Your task to perform on an android device: open a bookmark in the chrome app Image 0: 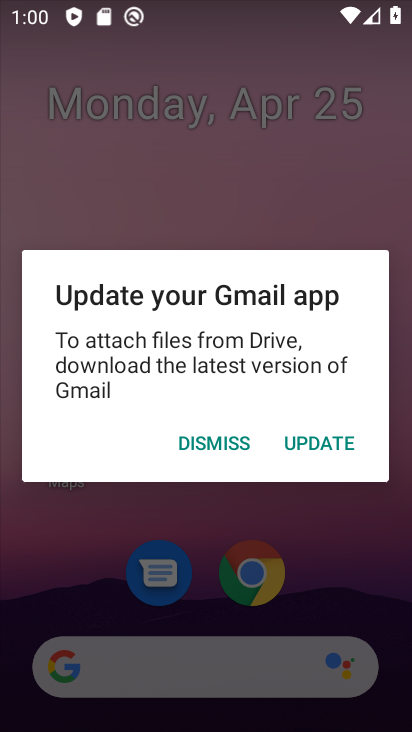
Step 0: click (235, 446)
Your task to perform on an android device: open a bookmark in the chrome app Image 1: 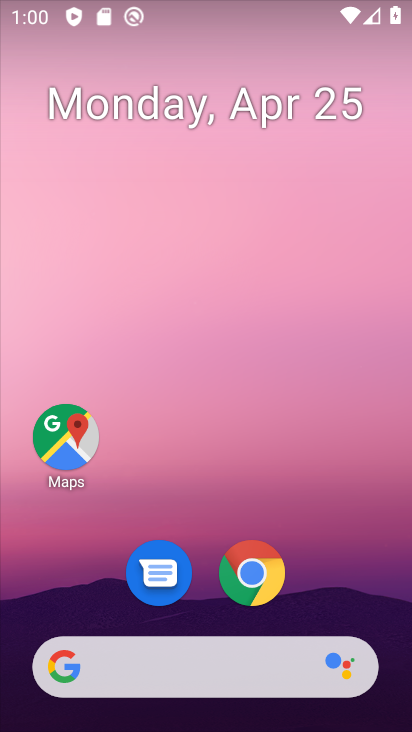
Step 1: click (255, 569)
Your task to perform on an android device: open a bookmark in the chrome app Image 2: 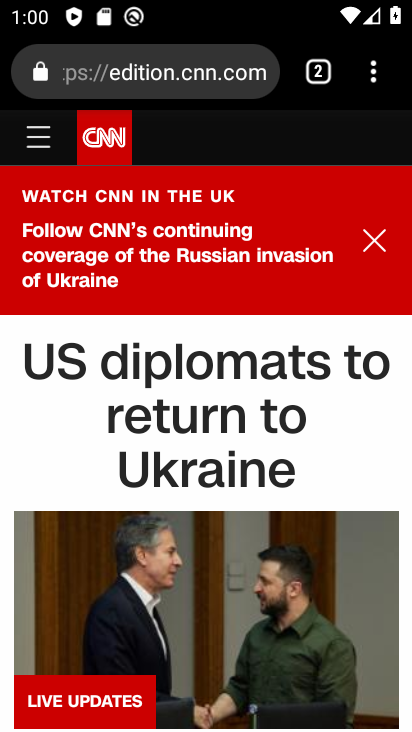
Step 2: click (374, 85)
Your task to perform on an android device: open a bookmark in the chrome app Image 3: 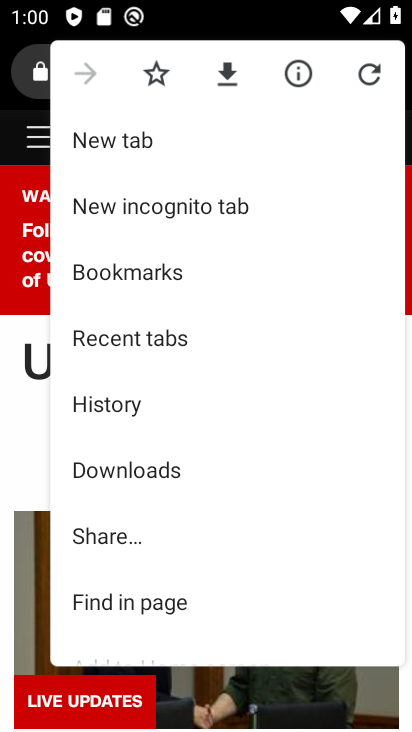
Step 3: click (130, 266)
Your task to perform on an android device: open a bookmark in the chrome app Image 4: 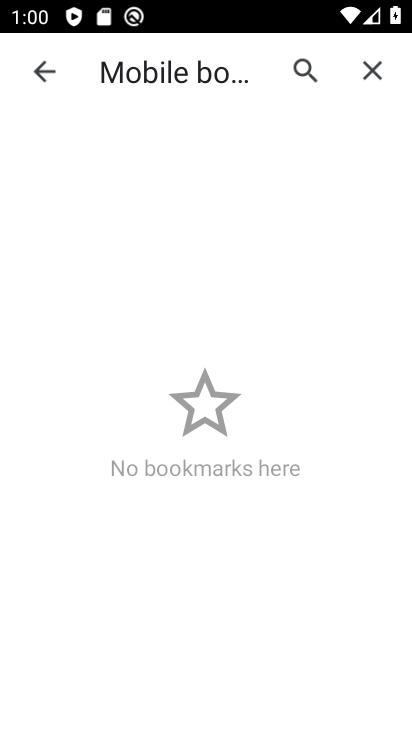
Step 4: task complete